Your task to perform on an android device: add a contact Image 0: 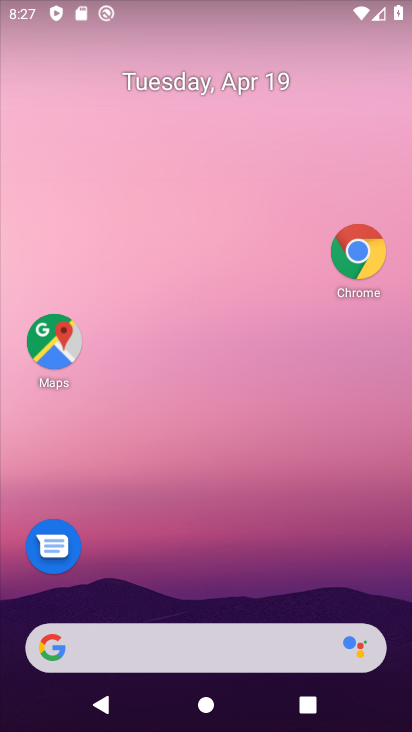
Step 0: drag from (62, 565) to (278, 190)
Your task to perform on an android device: add a contact Image 1: 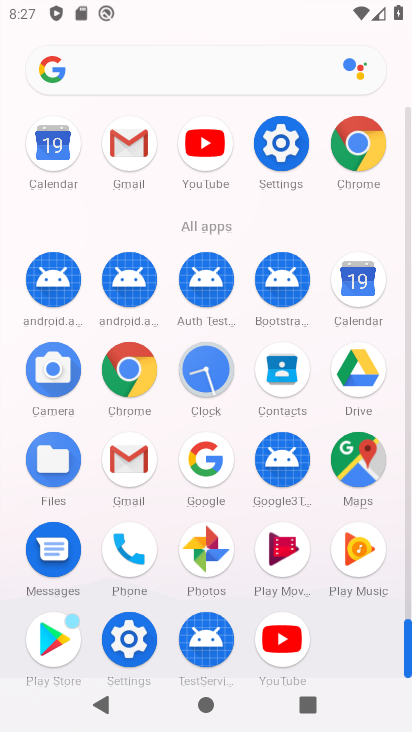
Step 1: click (147, 547)
Your task to perform on an android device: add a contact Image 2: 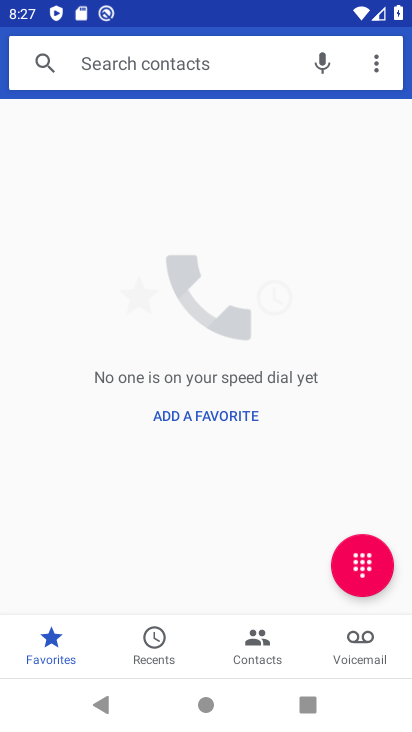
Step 2: click (254, 643)
Your task to perform on an android device: add a contact Image 3: 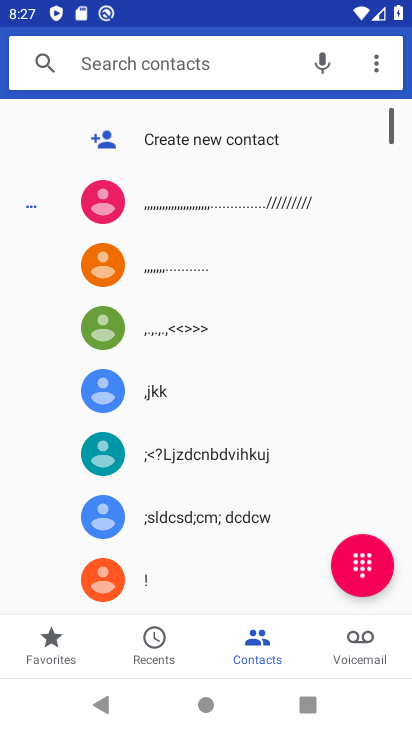
Step 3: click (256, 143)
Your task to perform on an android device: add a contact Image 4: 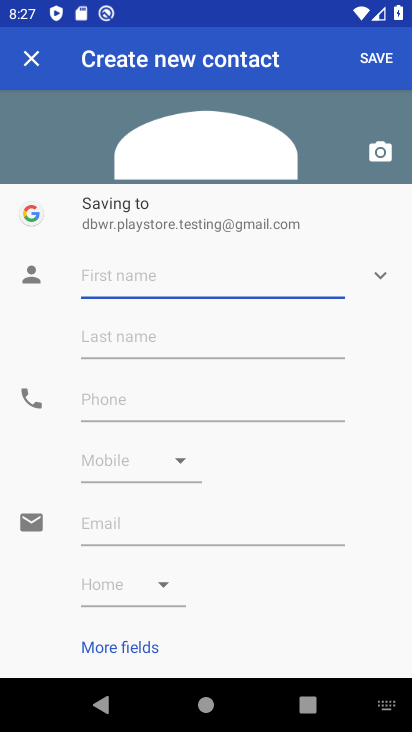
Step 4: click (218, 284)
Your task to perform on an android device: add a contact Image 5: 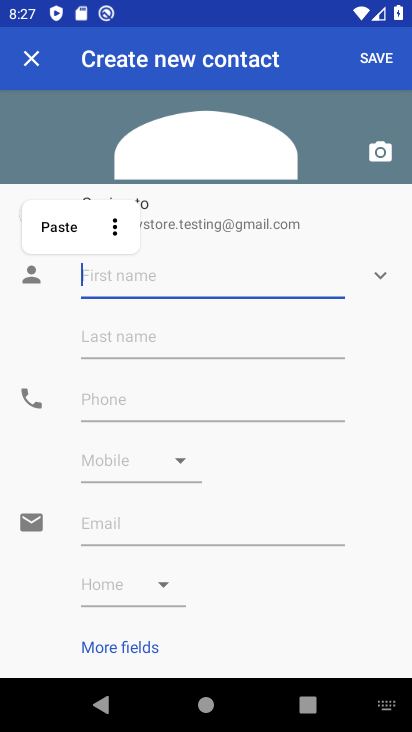
Step 5: type "ghfds"
Your task to perform on an android device: add a contact Image 6: 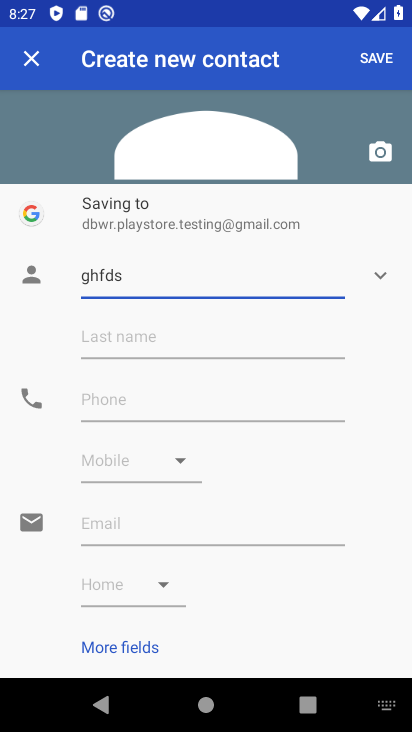
Step 6: click (369, 64)
Your task to perform on an android device: add a contact Image 7: 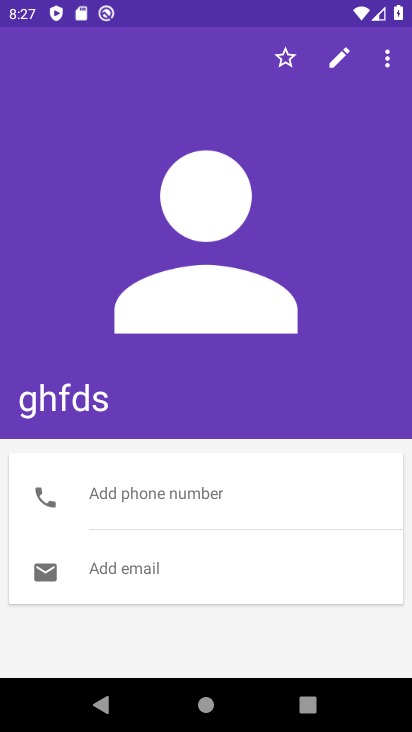
Step 7: task complete